Your task to perform on an android device: Go to wifi settings Image 0: 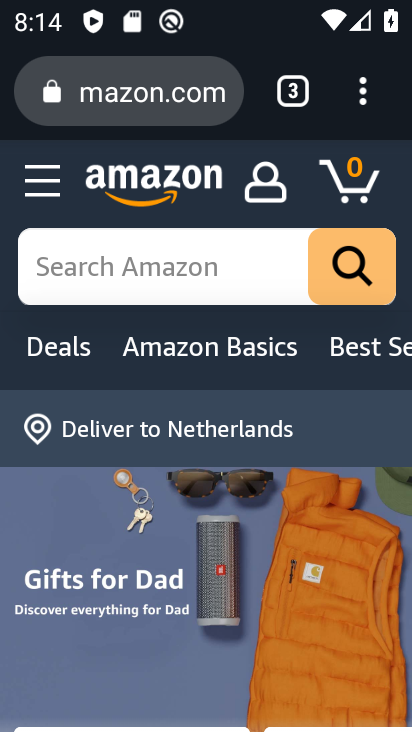
Step 0: press home button
Your task to perform on an android device: Go to wifi settings Image 1: 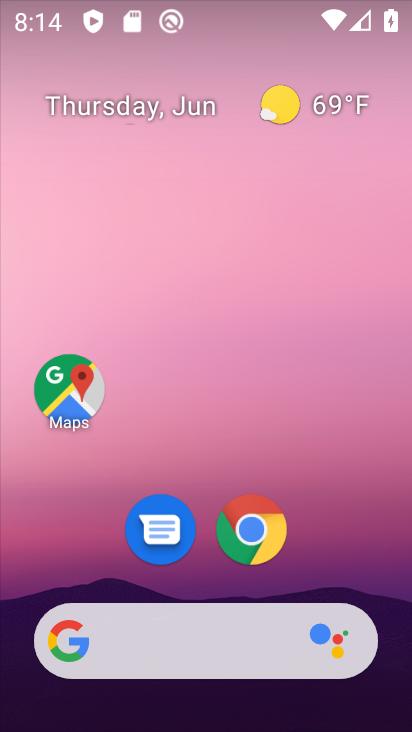
Step 1: drag from (222, 589) to (122, 179)
Your task to perform on an android device: Go to wifi settings Image 2: 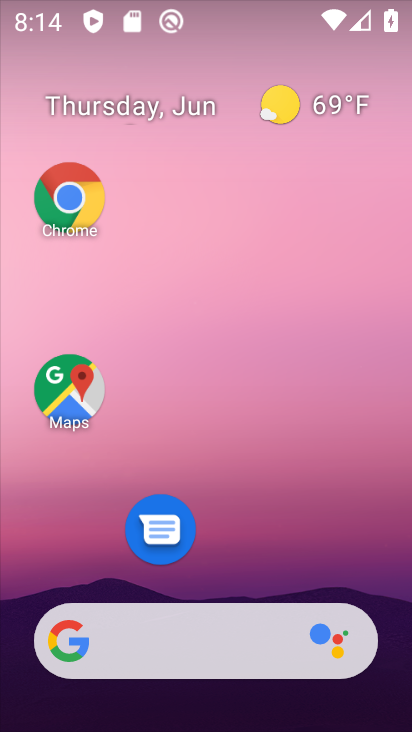
Step 2: drag from (236, 593) to (272, 1)
Your task to perform on an android device: Go to wifi settings Image 3: 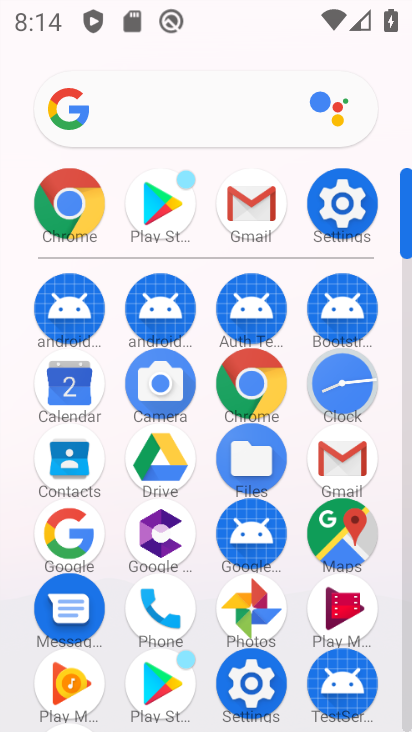
Step 3: click (339, 180)
Your task to perform on an android device: Go to wifi settings Image 4: 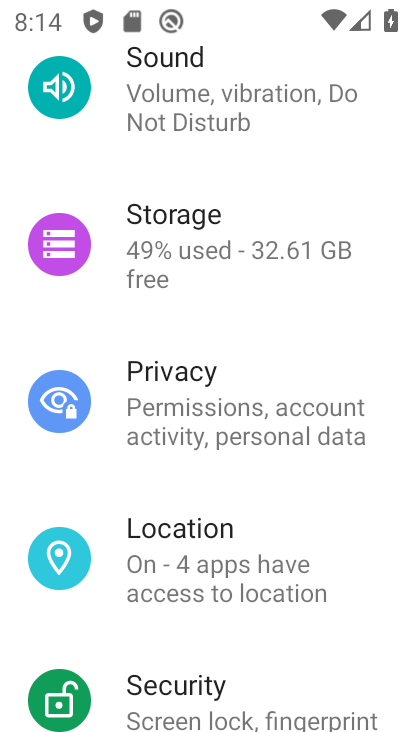
Step 4: drag from (339, 180) to (317, 624)
Your task to perform on an android device: Go to wifi settings Image 5: 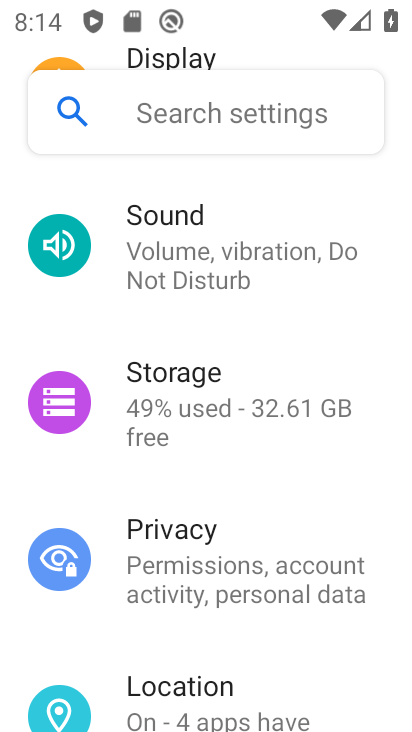
Step 5: drag from (241, 253) to (138, 697)
Your task to perform on an android device: Go to wifi settings Image 6: 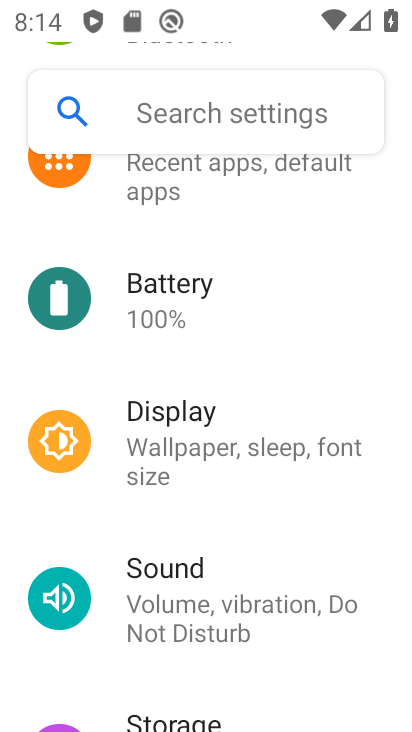
Step 6: drag from (176, 265) to (122, 729)
Your task to perform on an android device: Go to wifi settings Image 7: 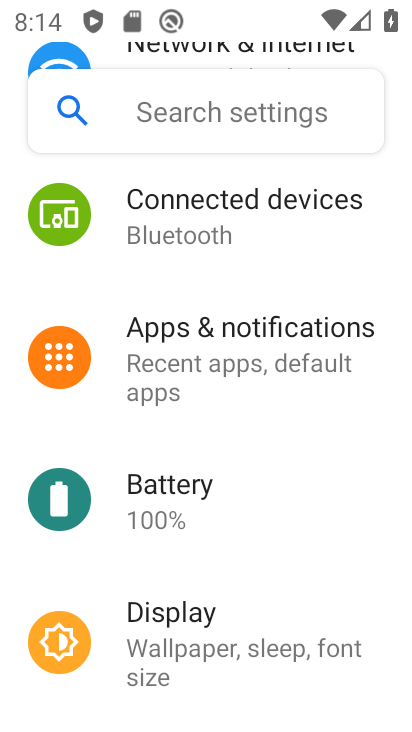
Step 7: drag from (214, 307) to (146, 650)
Your task to perform on an android device: Go to wifi settings Image 8: 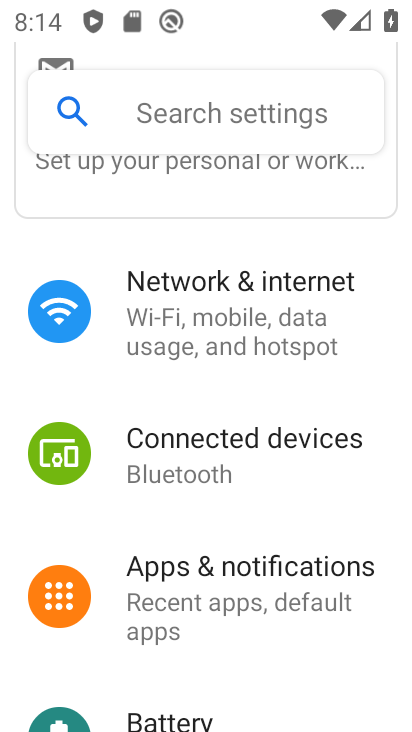
Step 8: click (265, 351)
Your task to perform on an android device: Go to wifi settings Image 9: 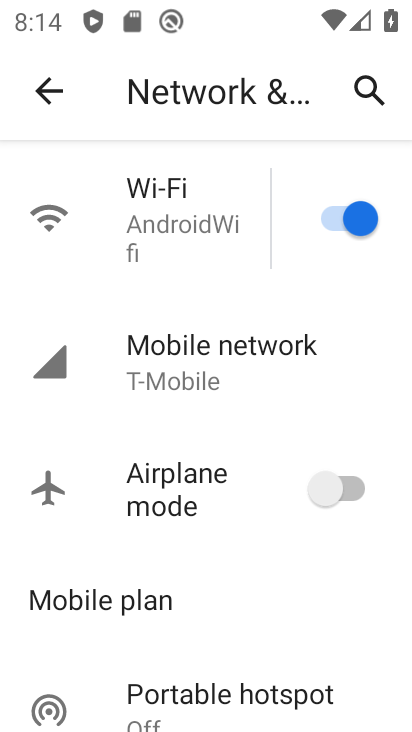
Step 9: click (181, 219)
Your task to perform on an android device: Go to wifi settings Image 10: 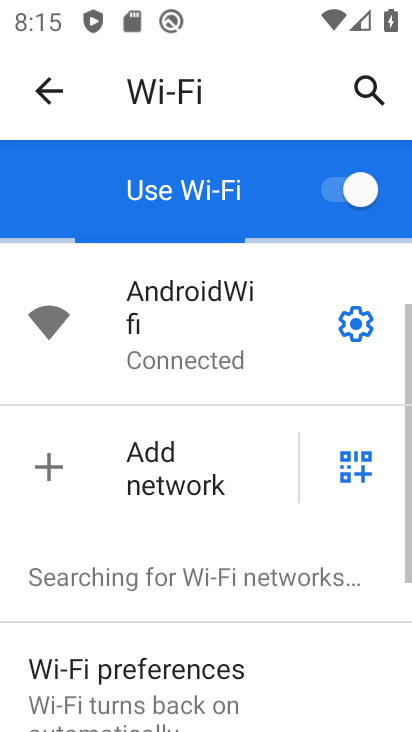
Step 10: task complete